Your task to perform on an android device: turn pop-ups on in chrome Image 0: 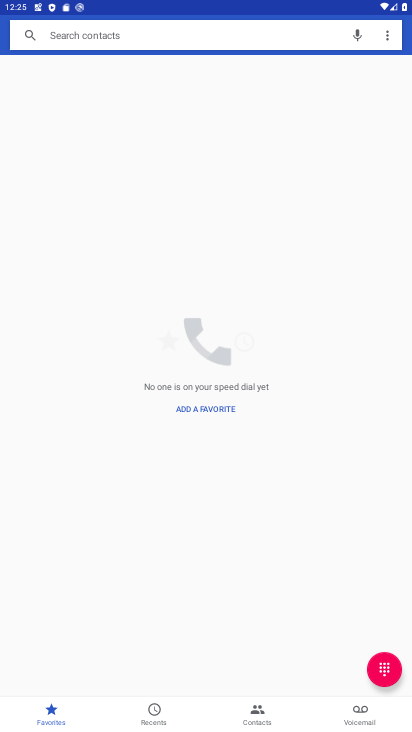
Step 0: press home button
Your task to perform on an android device: turn pop-ups on in chrome Image 1: 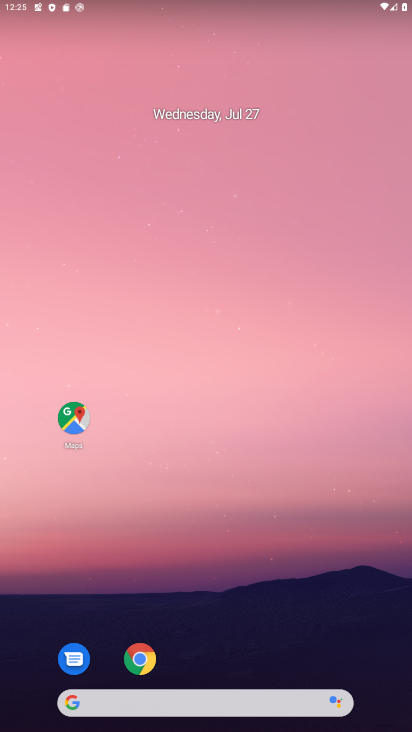
Step 1: click (135, 651)
Your task to perform on an android device: turn pop-ups on in chrome Image 2: 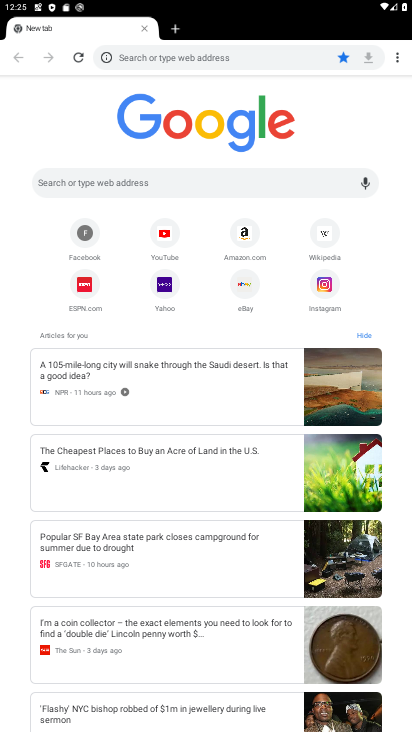
Step 2: click (394, 55)
Your task to perform on an android device: turn pop-ups on in chrome Image 3: 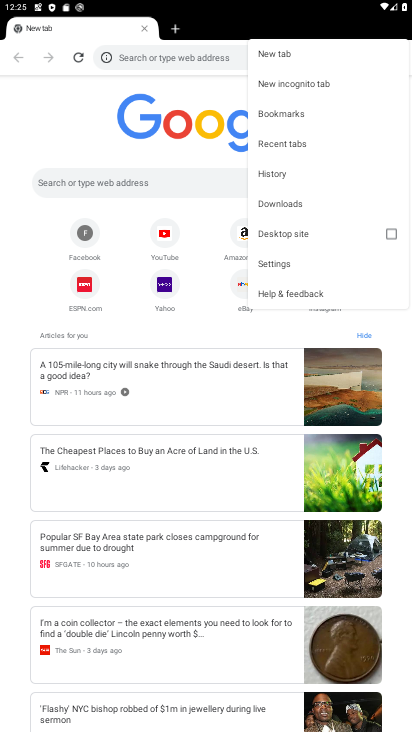
Step 3: click (286, 259)
Your task to perform on an android device: turn pop-ups on in chrome Image 4: 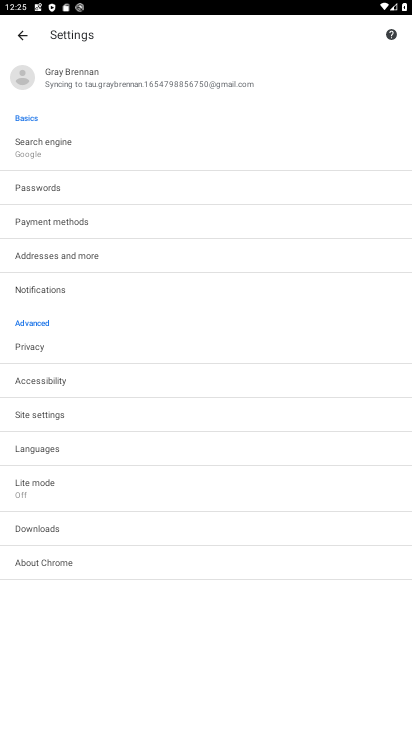
Step 4: click (83, 411)
Your task to perform on an android device: turn pop-ups on in chrome Image 5: 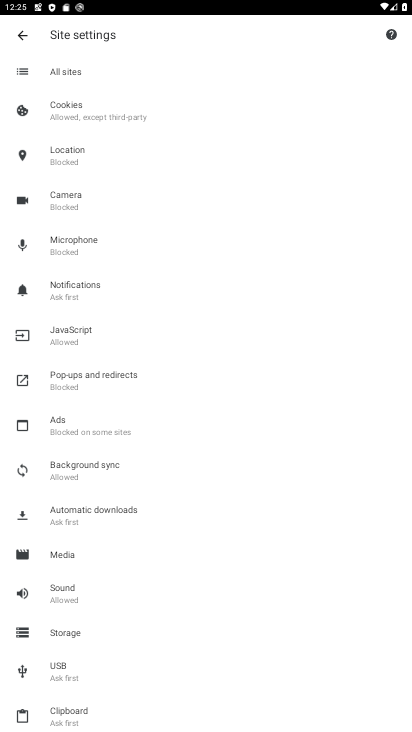
Step 5: click (94, 377)
Your task to perform on an android device: turn pop-ups on in chrome Image 6: 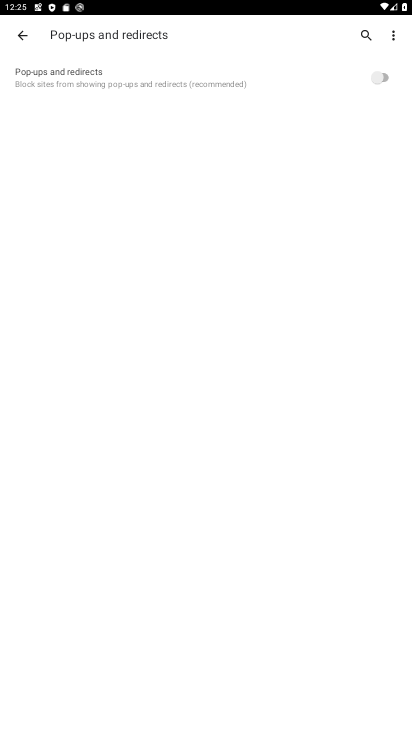
Step 6: click (381, 73)
Your task to perform on an android device: turn pop-ups on in chrome Image 7: 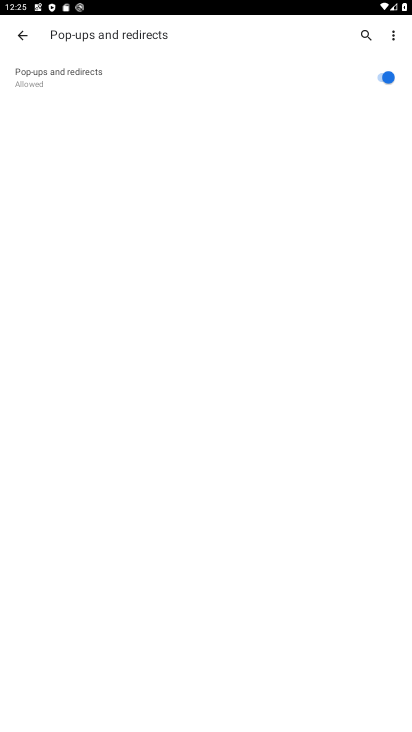
Step 7: task complete